Your task to perform on an android device: What's the weather? Image 0: 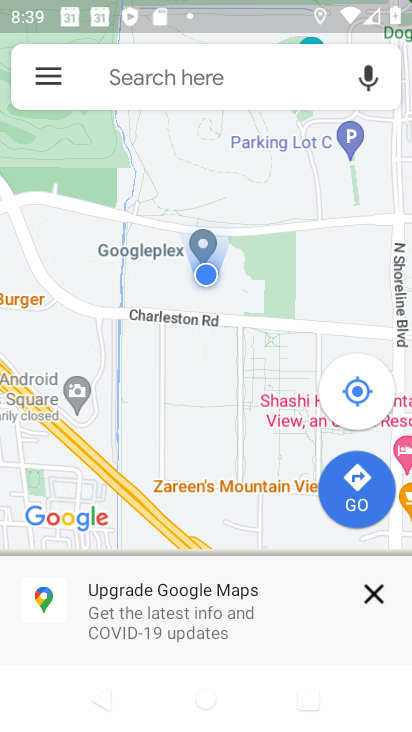
Step 0: press back button
Your task to perform on an android device: What's the weather? Image 1: 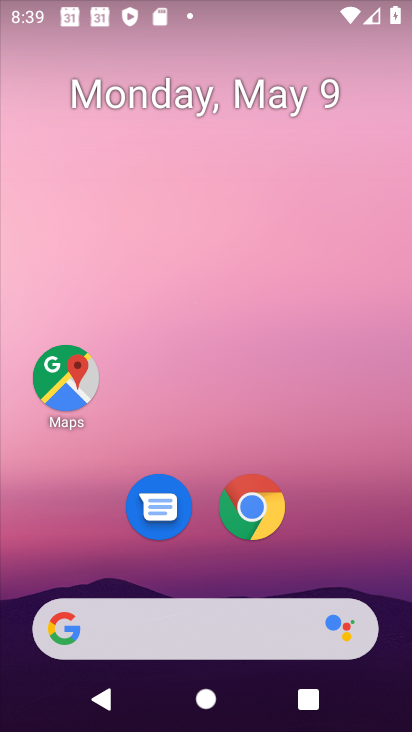
Step 1: drag from (304, 541) to (272, 71)
Your task to perform on an android device: What's the weather? Image 2: 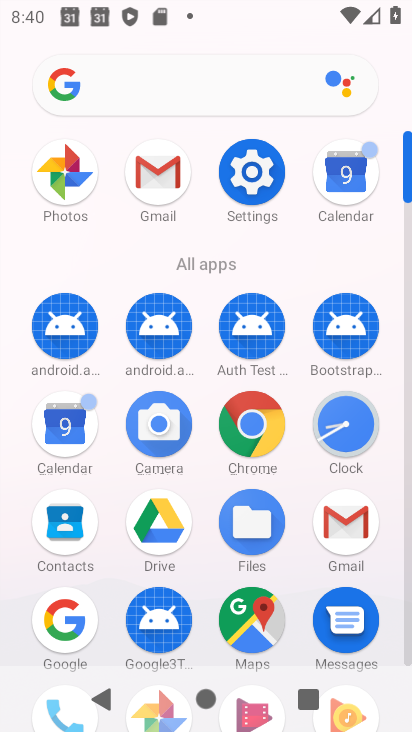
Step 2: drag from (211, 534) to (209, 356)
Your task to perform on an android device: What's the weather? Image 3: 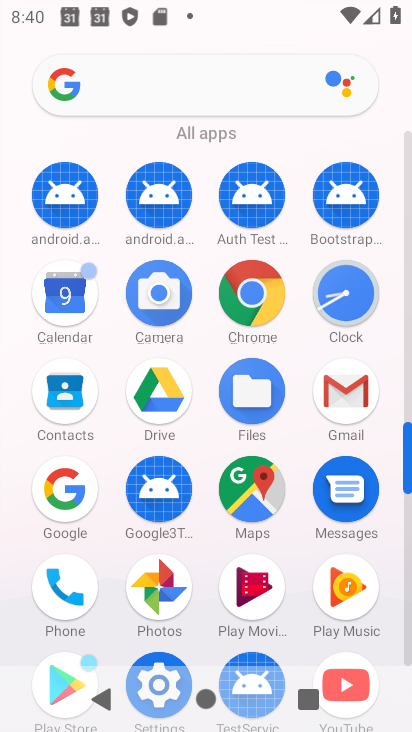
Step 3: click (61, 486)
Your task to perform on an android device: What's the weather? Image 4: 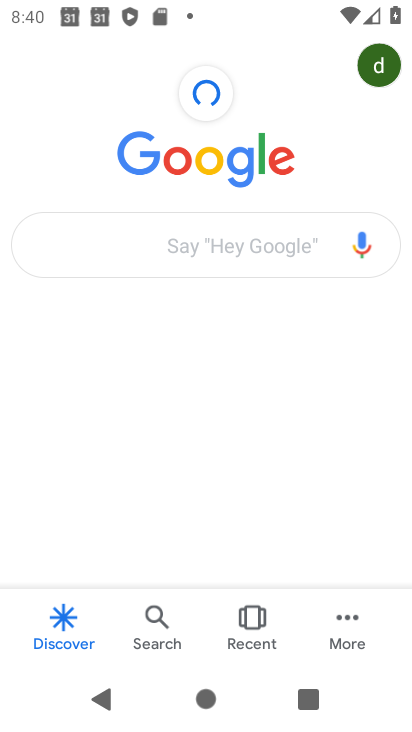
Step 4: click (208, 235)
Your task to perform on an android device: What's the weather? Image 5: 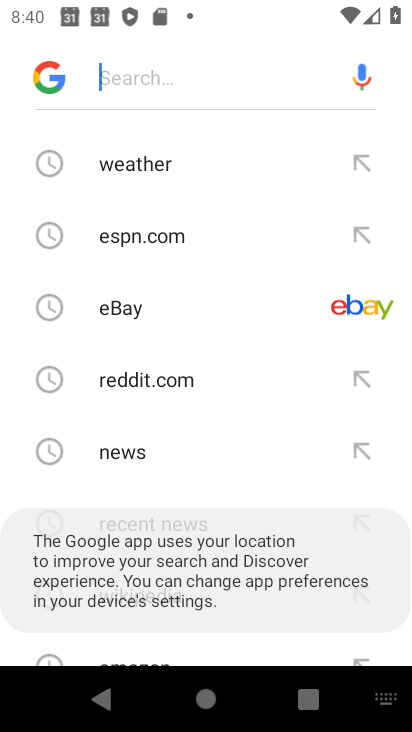
Step 5: click (138, 164)
Your task to perform on an android device: What's the weather? Image 6: 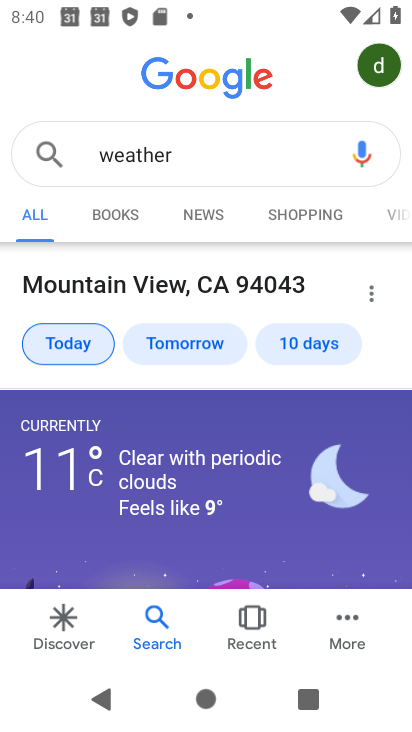
Step 6: task complete